Your task to perform on an android device: Go to accessibility settings Image 0: 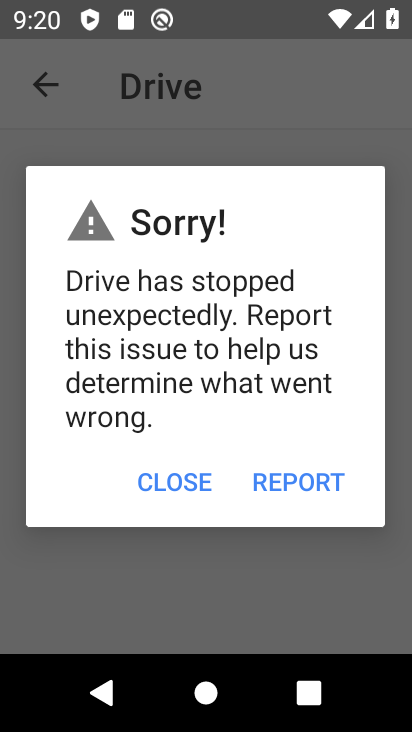
Step 0: press home button
Your task to perform on an android device: Go to accessibility settings Image 1: 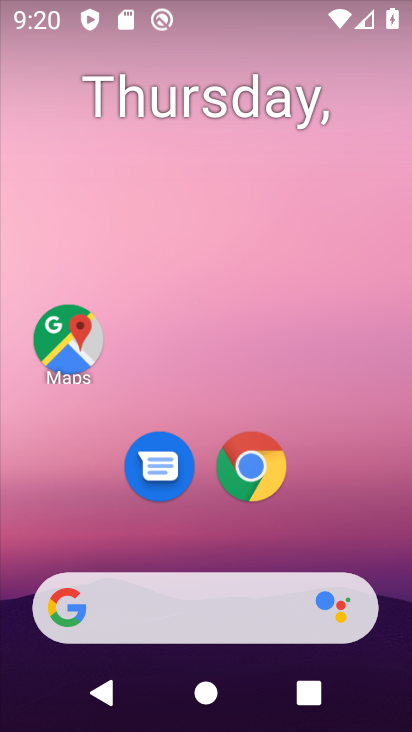
Step 1: drag from (375, 514) to (387, 164)
Your task to perform on an android device: Go to accessibility settings Image 2: 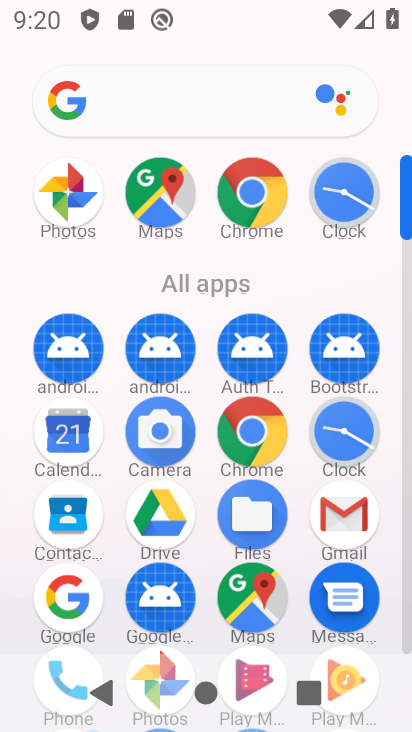
Step 2: drag from (293, 554) to (292, 207)
Your task to perform on an android device: Go to accessibility settings Image 3: 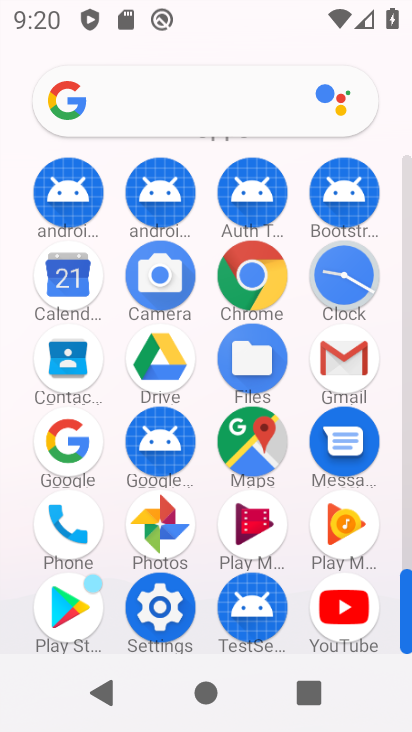
Step 3: click (161, 592)
Your task to perform on an android device: Go to accessibility settings Image 4: 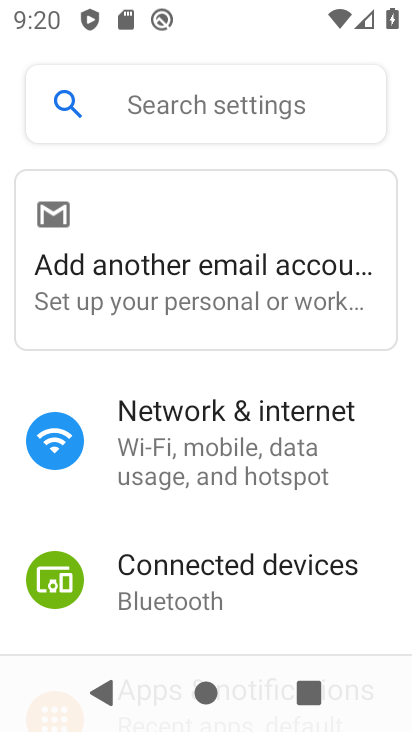
Step 4: drag from (299, 503) to (331, 209)
Your task to perform on an android device: Go to accessibility settings Image 5: 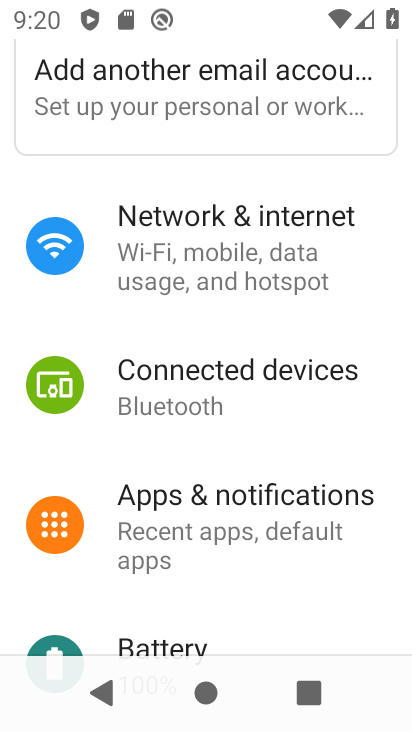
Step 5: drag from (312, 571) to (312, 323)
Your task to perform on an android device: Go to accessibility settings Image 6: 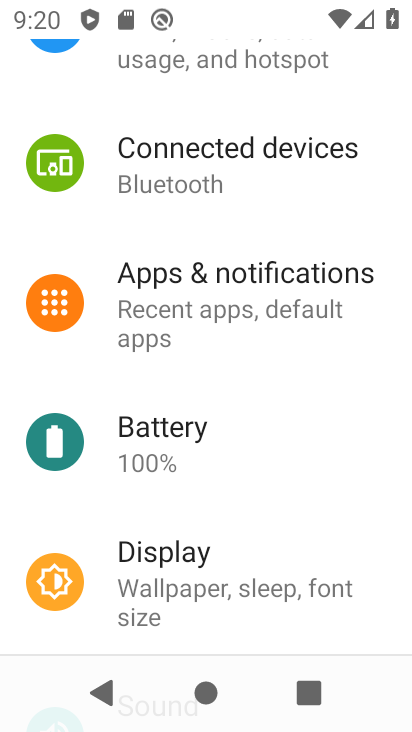
Step 6: drag from (281, 475) to (314, 197)
Your task to perform on an android device: Go to accessibility settings Image 7: 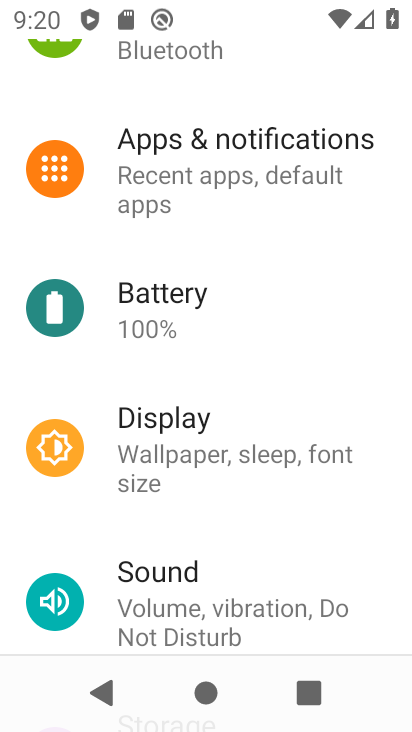
Step 7: drag from (299, 510) to (303, 274)
Your task to perform on an android device: Go to accessibility settings Image 8: 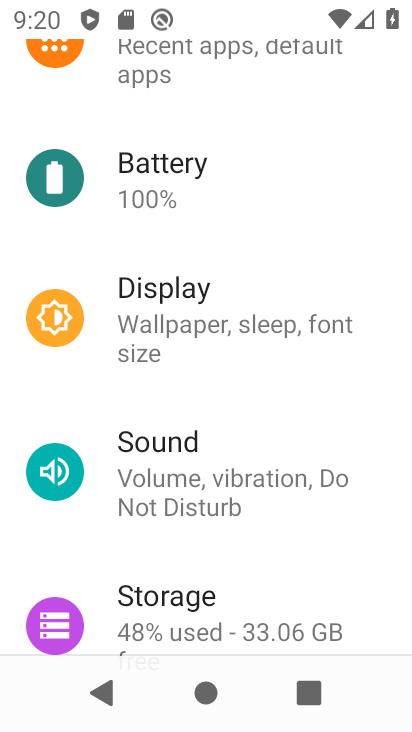
Step 8: drag from (299, 559) to (314, 245)
Your task to perform on an android device: Go to accessibility settings Image 9: 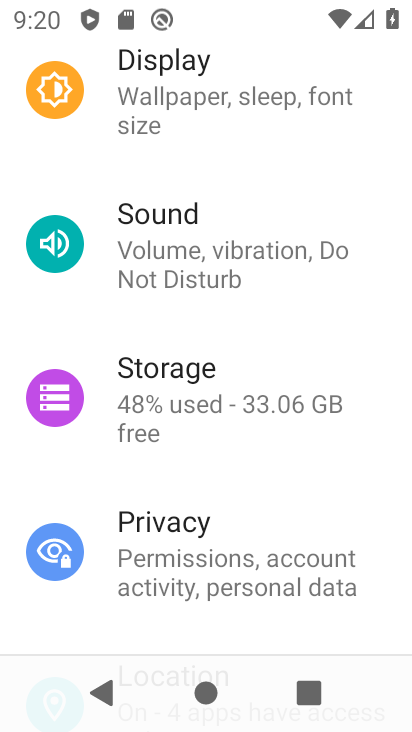
Step 9: drag from (282, 618) to (321, 328)
Your task to perform on an android device: Go to accessibility settings Image 10: 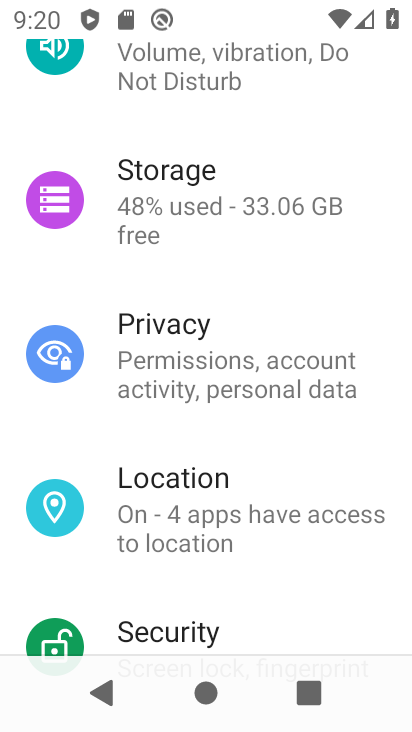
Step 10: drag from (323, 568) to (340, 278)
Your task to perform on an android device: Go to accessibility settings Image 11: 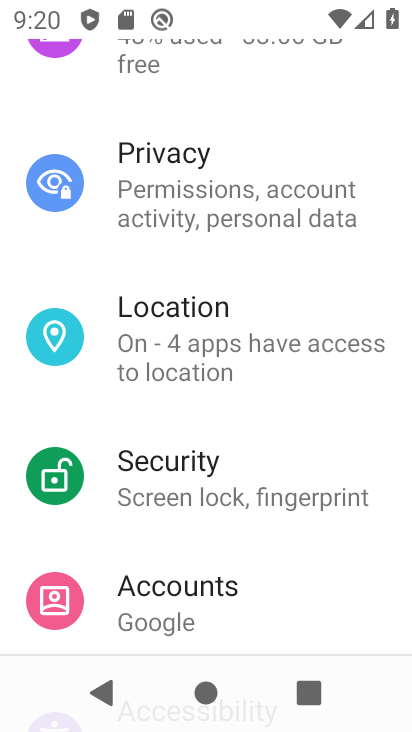
Step 11: drag from (307, 553) to (315, 294)
Your task to perform on an android device: Go to accessibility settings Image 12: 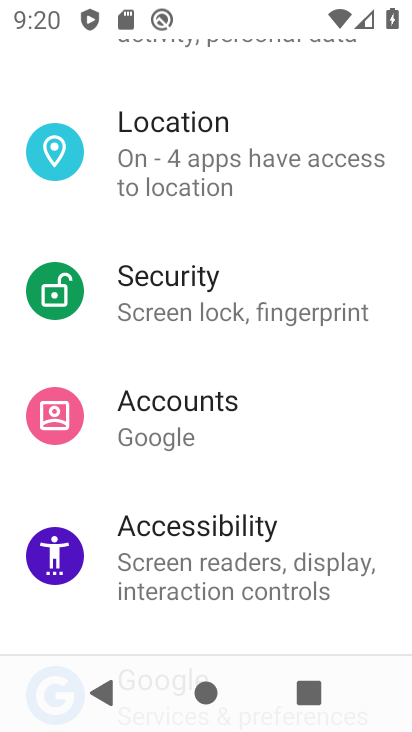
Step 12: click (319, 538)
Your task to perform on an android device: Go to accessibility settings Image 13: 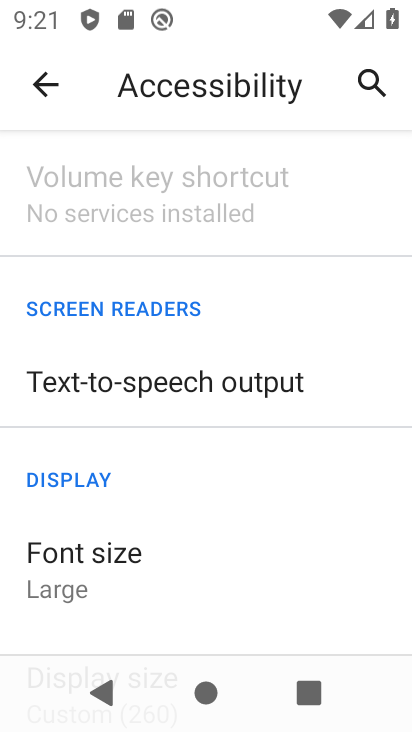
Step 13: task complete